Your task to perform on an android device: refresh tabs in the chrome app Image 0: 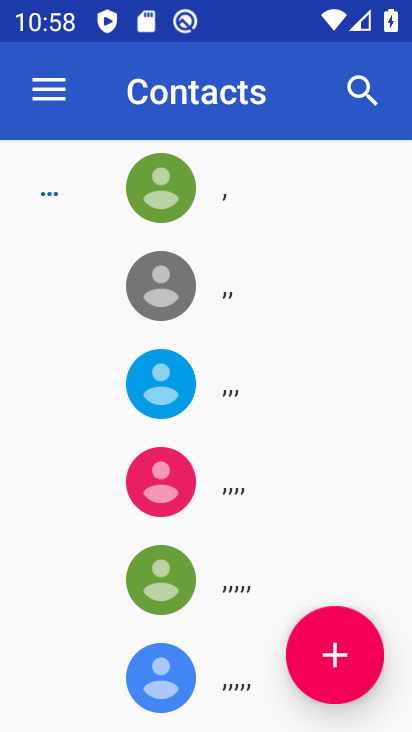
Step 0: press back button
Your task to perform on an android device: refresh tabs in the chrome app Image 1: 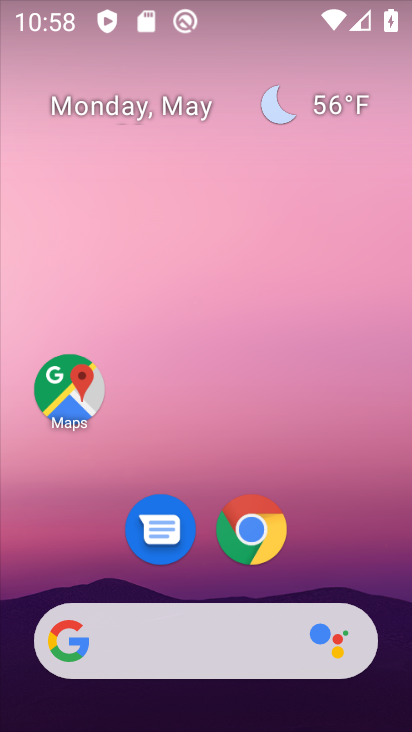
Step 1: click (253, 533)
Your task to perform on an android device: refresh tabs in the chrome app Image 2: 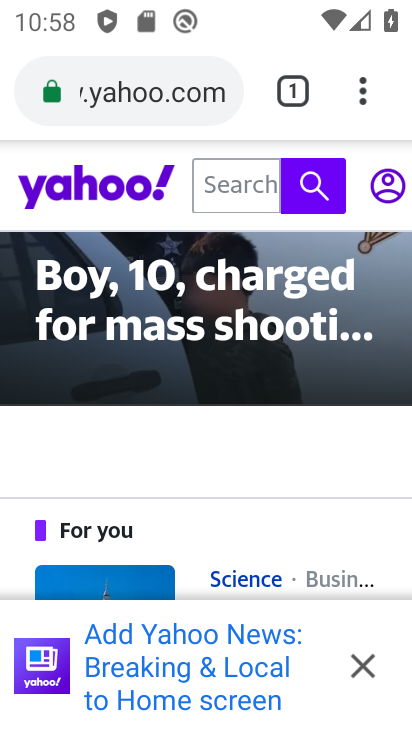
Step 2: click (366, 90)
Your task to perform on an android device: refresh tabs in the chrome app Image 3: 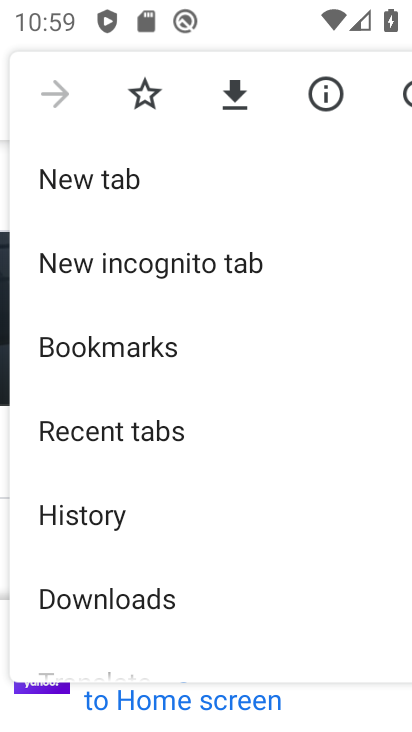
Step 3: click (408, 97)
Your task to perform on an android device: refresh tabs in the chrome app Image 4: 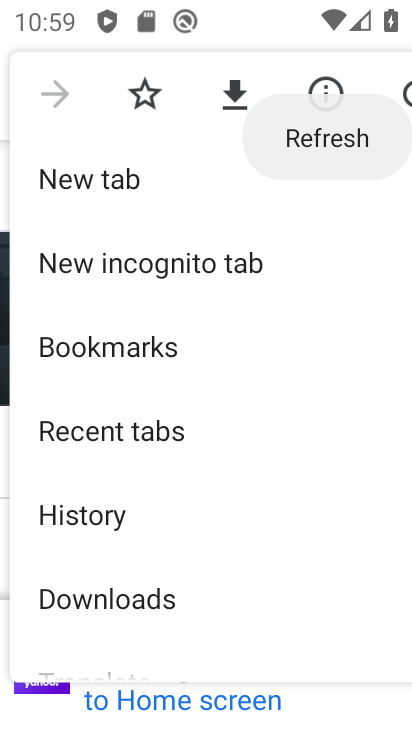
Step 4: click (408, 97)
Your task to perform on an android device: refresh tabs in the chrome app Image 5: 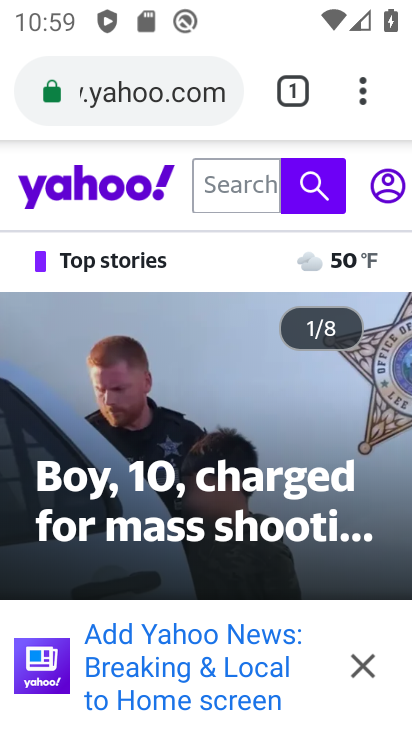
Step 5: task complete